Your task to perform on an android device: Open Google Maps and go to "Timeline" Image 0: 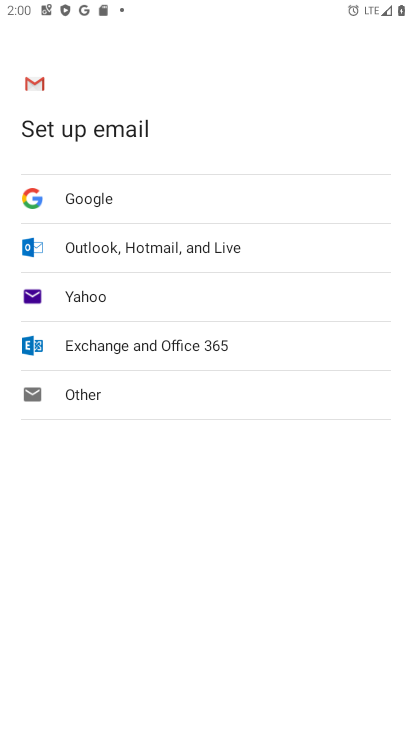
Step 0: press home button
Your task to perform on an android device: Open Google Maps and go to "Timeline" Image 1: 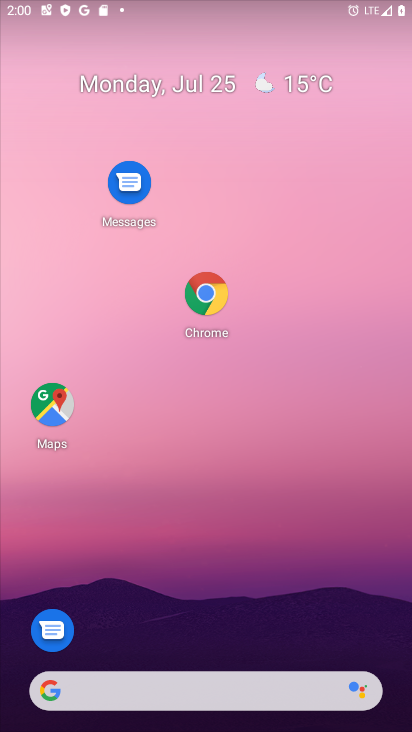
Step 1: drag from (268, 598) to (312, 125)
Your task to perform on an android device: Open Google Maps and go to "Timeline" Image 2: 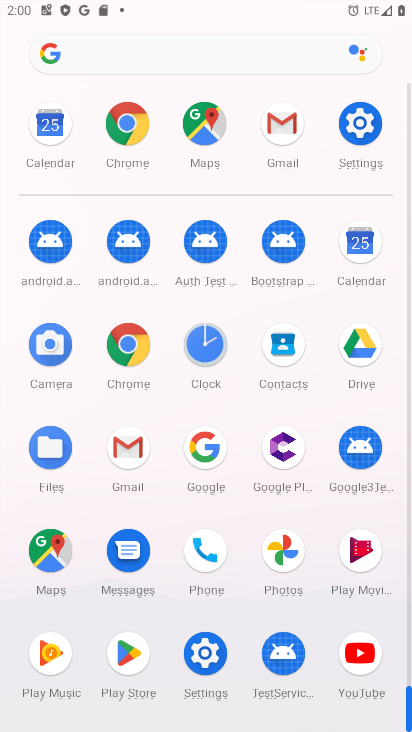
Step 2: click (56, 554)
Your task to perform on an android device: Open Google Maps and go to "Timeline" Image 3: 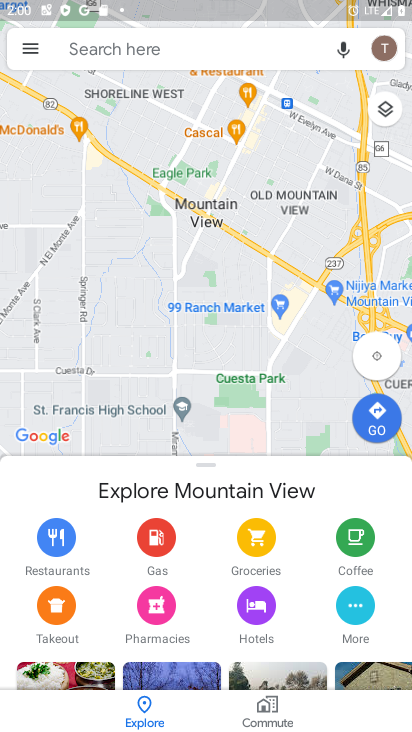
Step 3: click (20, 50)
Your task to perform on an android device: Open Google Maps and go to "Timeline" Image 4: 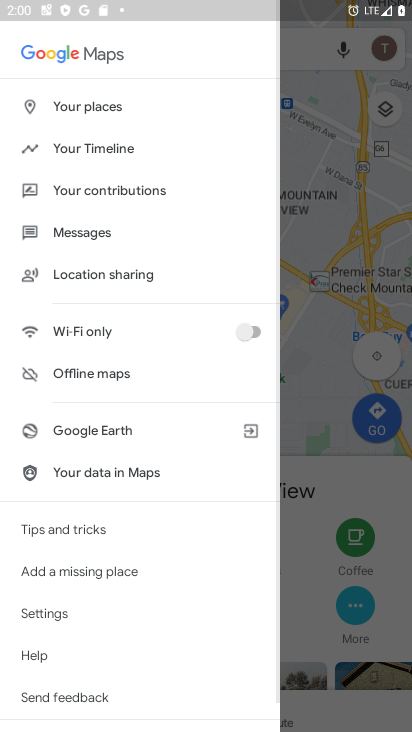
Step 4: click (121, 134)
Your task to perform on an android device: Open Google Maps and go to "Timeline" Image 5: 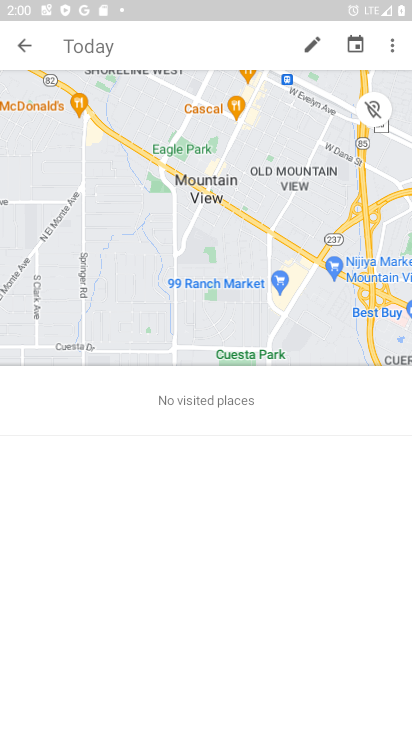
Step 5: task complete